Your task to perform on an android device: Open calendar and show me the fourth week of next month Image 0: 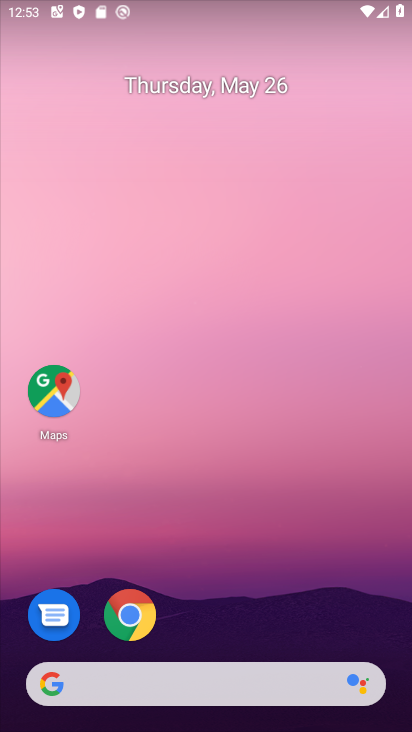
Step 0: drag from (259, 614) to (269, 141)
Your task to perform on an android device: Open calendar and show me the fourth week of next month Image 1: 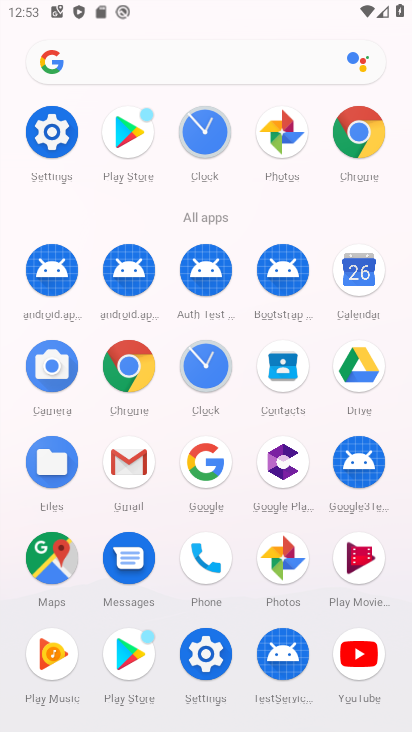
Step 1: click (358, 275)
Your task to perform on an android device: Open calendar and show me the fourth week of next month Image 2: 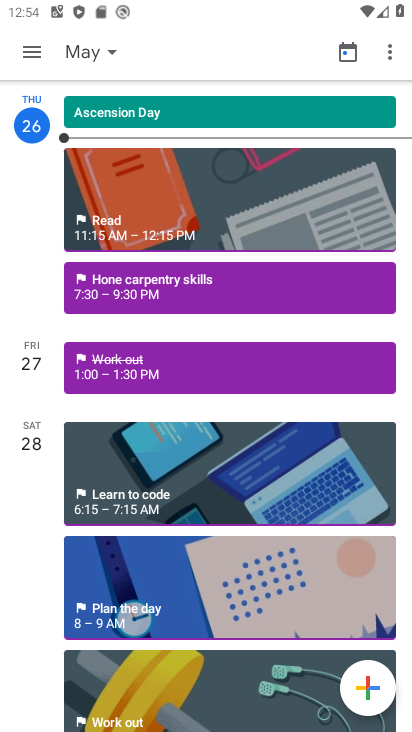
Step 2: click (92, 50)
Your task to perform on an android device: Open calendar and show me the fourth week of next month Image 3: 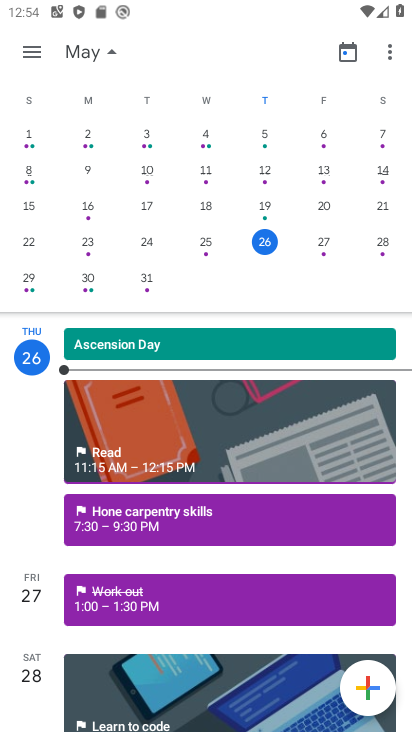
Step 3: drag from (373, 211) to (0, 204)
Your task to perform on an android device: Open calendar and show me the fourth week of next month Image 4: 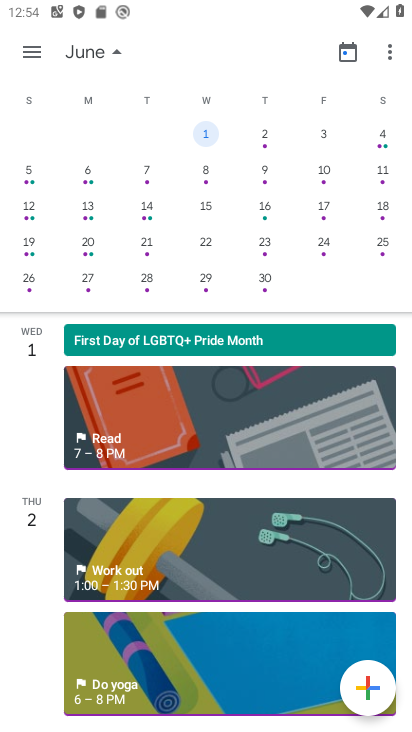
Step 4: click (91, 242)
Your task to perform on an android device: Open calendar and show me the fourth week of next month Image 5: 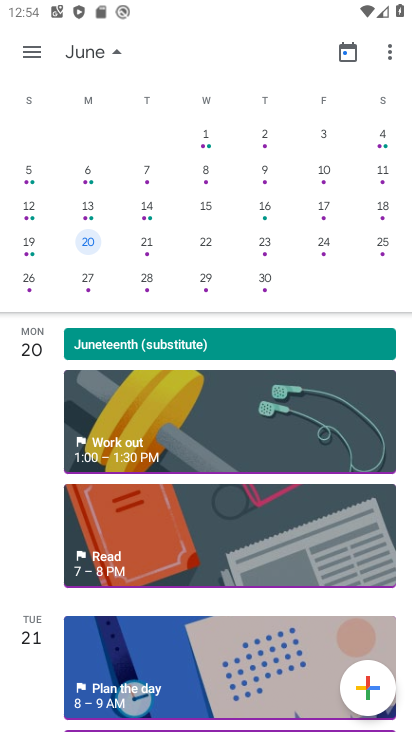
Step 5: task complete